Your task to perform on an android device: change the clock display to analog Image 0: 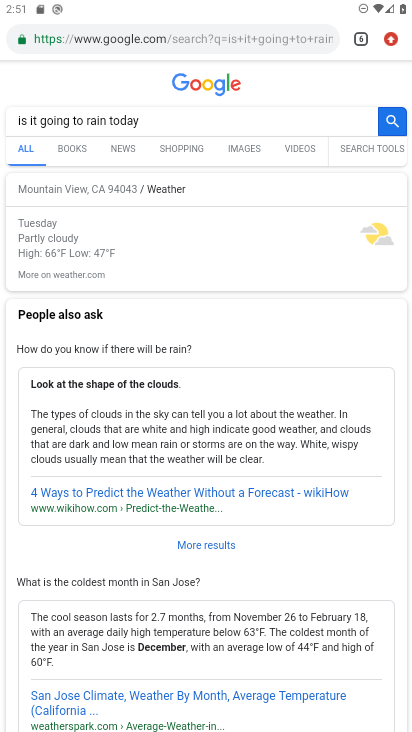
Step 0: press home button
Your task to perform on an android device: change the clock display to analog Image 1: 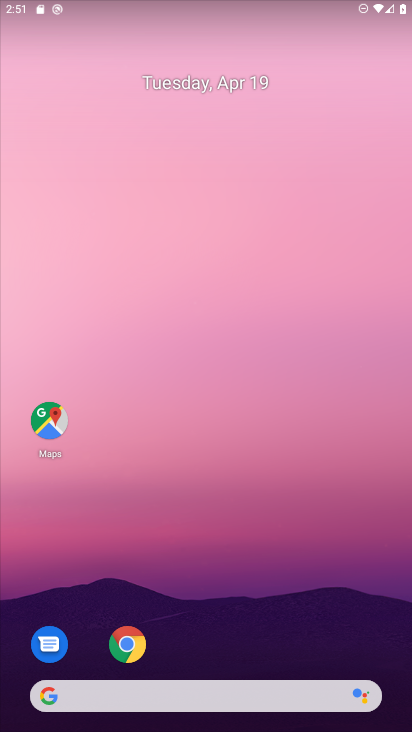
Step 1: drag from (171, 445) to (158, 203)
Your task to perform on an android device: change the clock display to analog Image 2: 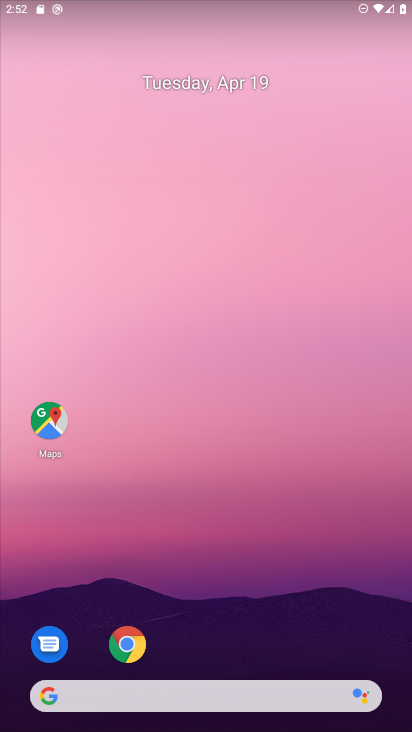
Step 2: drag from (243, 545) to (89, 0)
Your task to perform on an android device: change the clock display to analog Image 3: 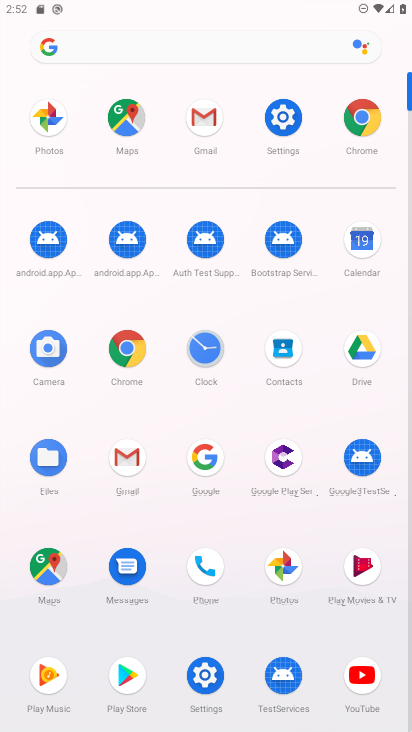
Step 3: click (208, 346)
Your task to perform on an android device: change the clock display to analog Image 4: 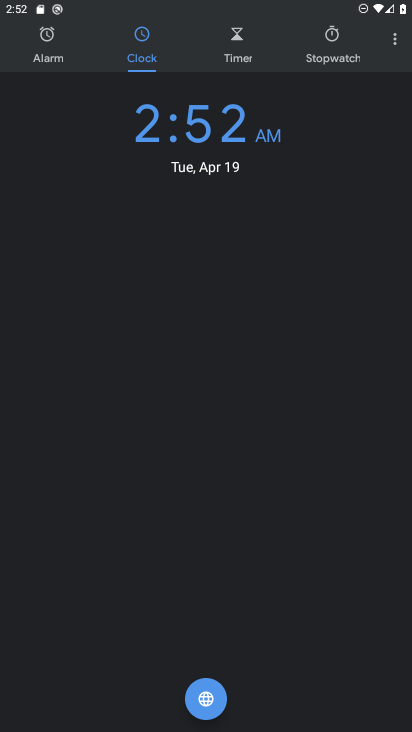
Step 4: click (391, 31)
Your task to perform on an android device: change the clock display to analog Image 5: 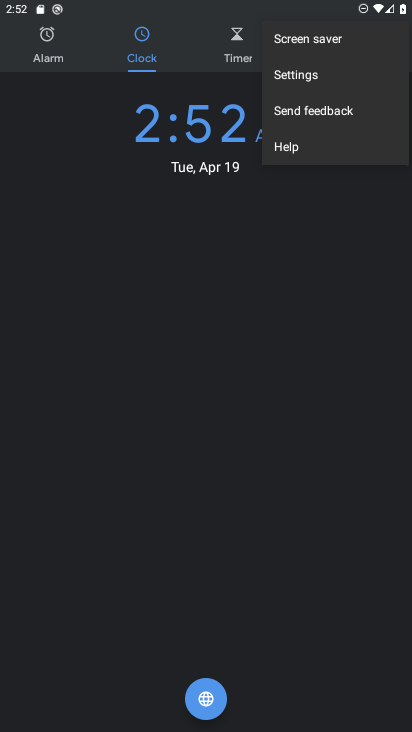
Step 5: click (303, 76)
Your task to perform on an android device: change the clock display to analog Image 6: 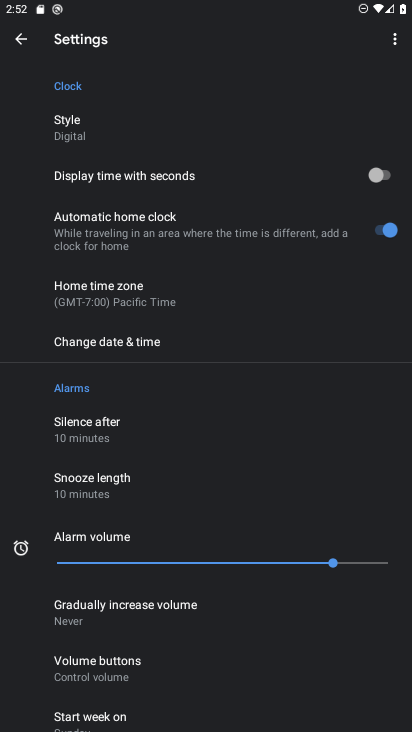
Step 6: click (75, 127)
Your task to perform on an android device: change the clock display to analog Image 7: 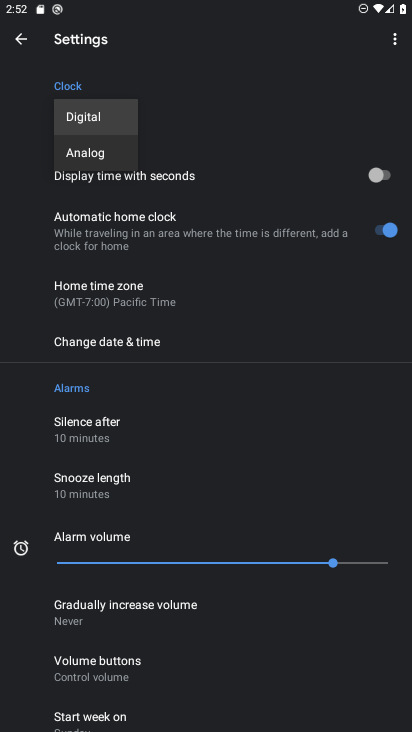
Step 7: click (85, 158)
Your task to perform on an android device: change the clock display to analog Image 8: 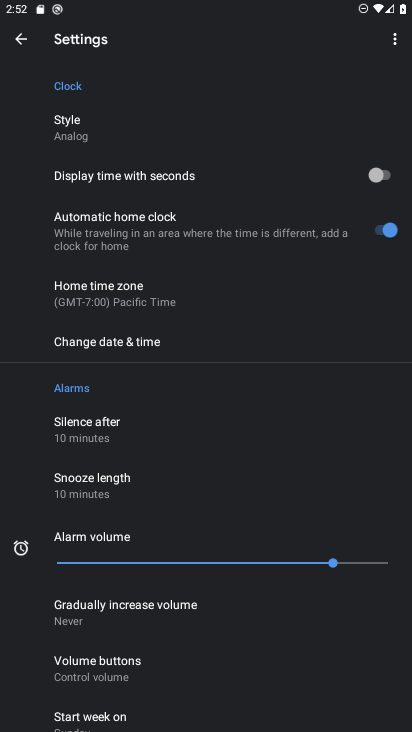
Step 8: task complete